Your task to perform on an android device: install app "Skype" Image 0: 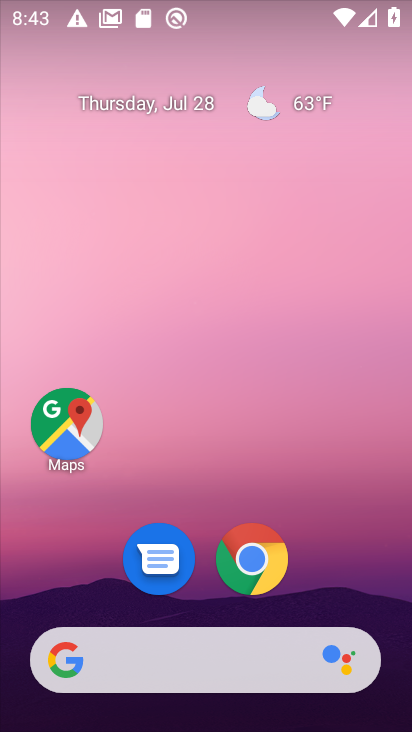
Step 0: drag from (313, 573) to (306, 25)
Your task to perform on an android device: install app "Skype" Image 1: 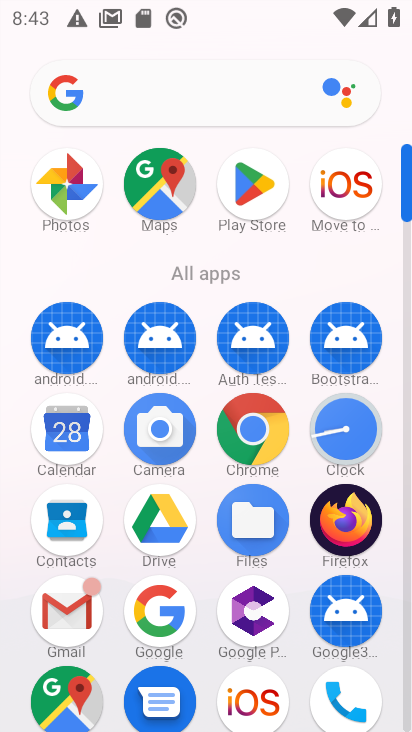
Step 1: click (259, 194)
Your task to perform on an android device: install app "Skype" Image 2: 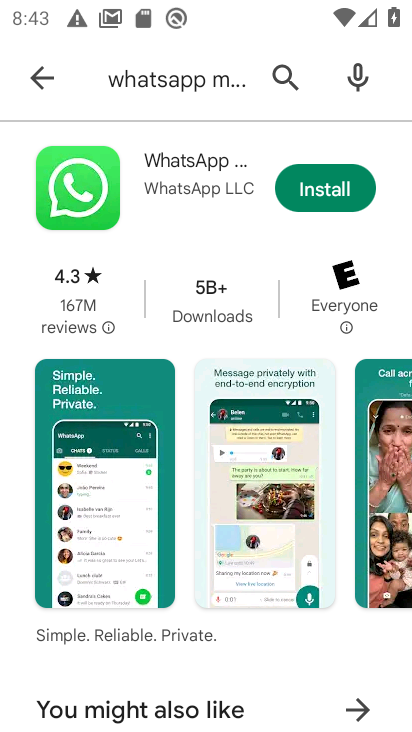
Step 2: click (286, 85)
Your task to perform on an android device: install app "Skype" Image 3: 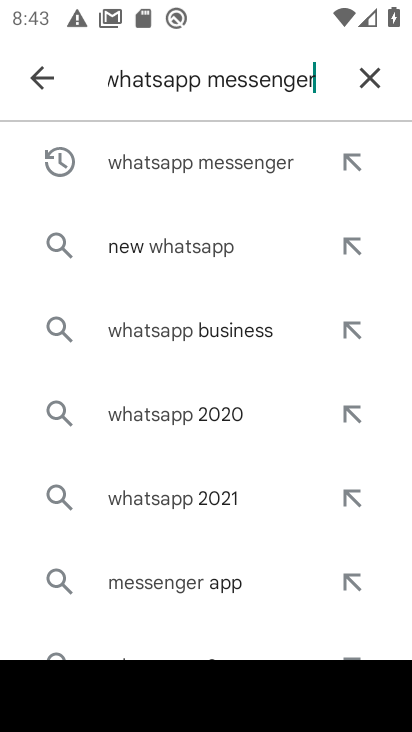
Step 3: click (360, 88)
Your task to perform on an android device: install app "Skype" Image 4: 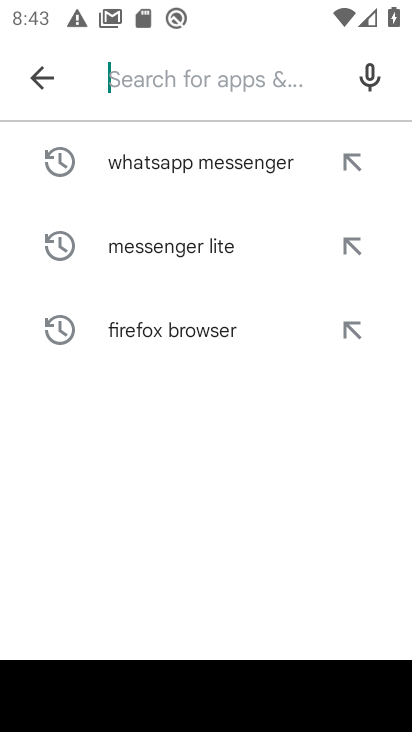
Step 4: click (168, 83)
Your task to perform on an android device: install app "Skype" Image 5: 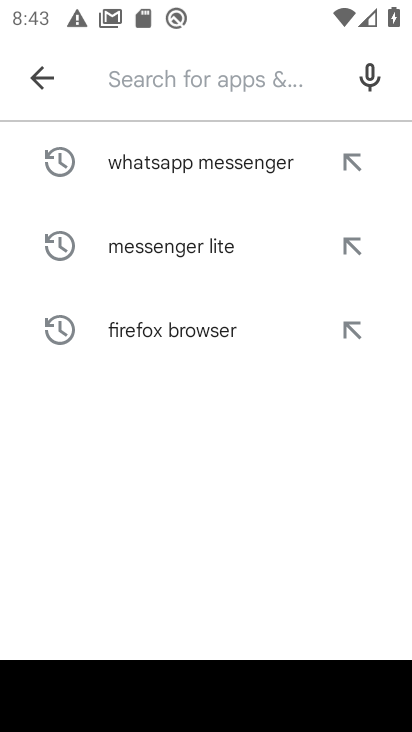
Step 5: type "Skype"
Your task to perform on an android device: install app "Skype" Image 6: 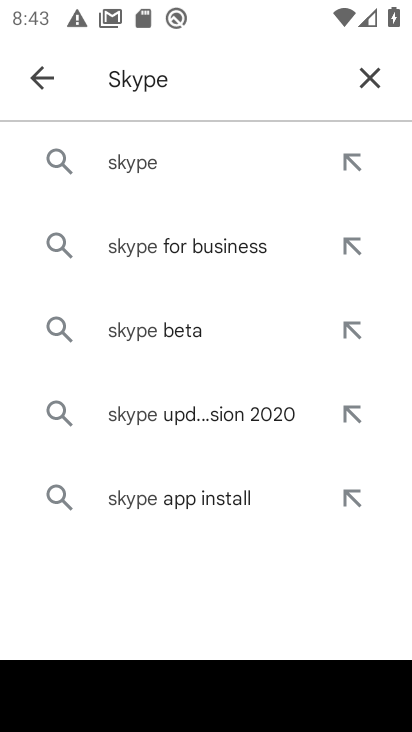
Step 6: click (123, 156)
Your task to perform on an android device: install app "Skype" Image 7: 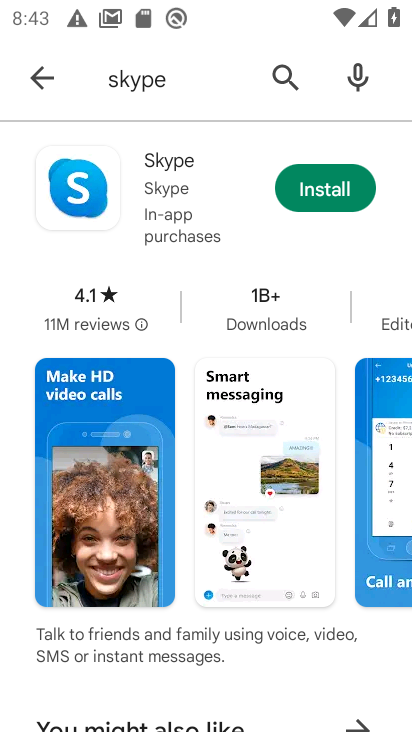
Step 7: click (338, 195)
Your task to perform on an android device: install app "Skype" Image 8: 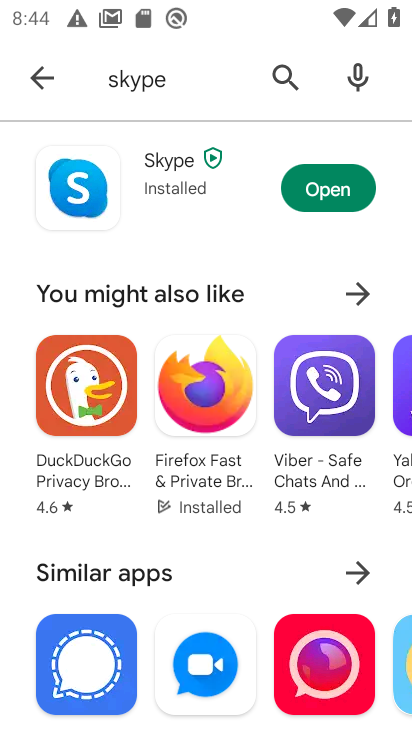
Step 8: task complete